Your task to perform on an android device: search for starred emails in the gmail app Image 0: 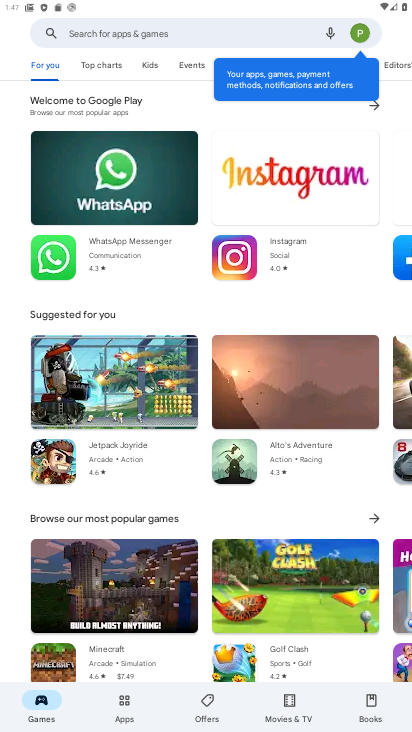
Step 0: press home button
Your task to perform on an android device: search for starred emails in the gmail app Image 1: 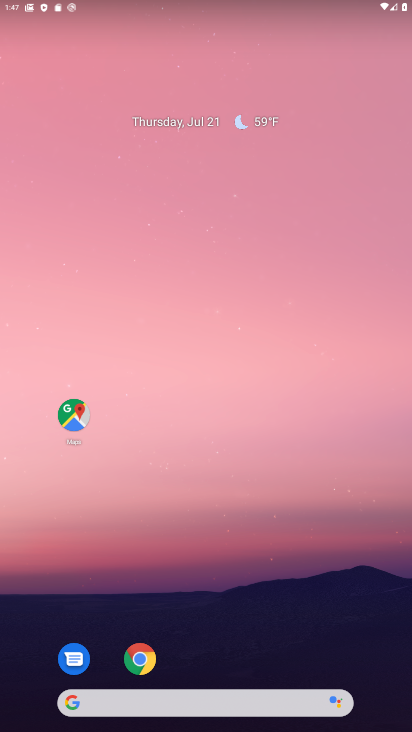
Step 1: drag from (295, 604) to (212, 131)
Your task to perform on an android device: search for starred emails in the gmail app Image 2: 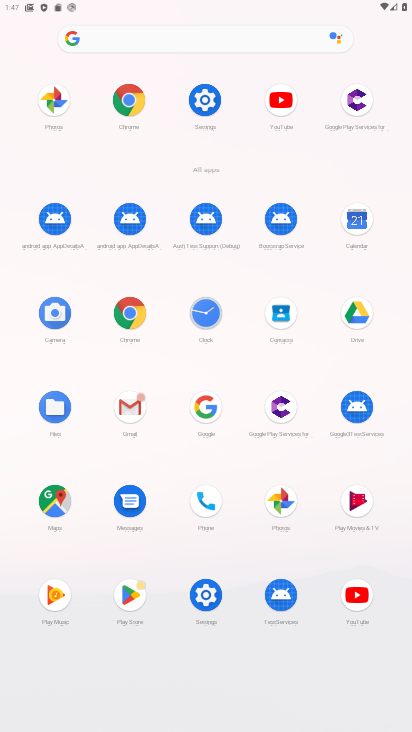
Step 2: click (136, 405)
Your task to perform on an android device: search for starred emails in the gmail app Image 3: 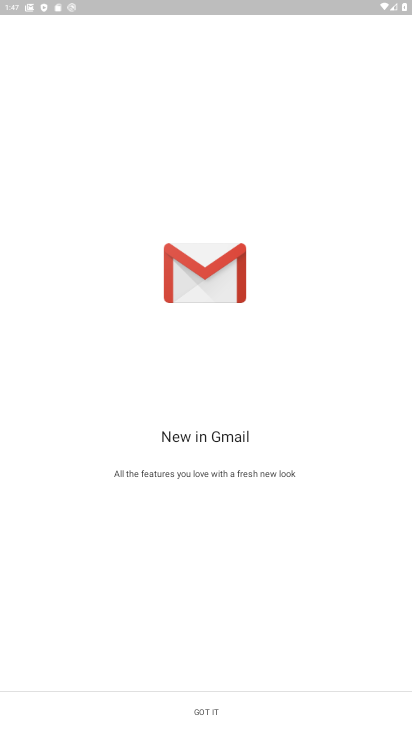
Step 3: click (210, 704)
Your task to perform on an android device: search for starred emails in the gmail app Image 4: 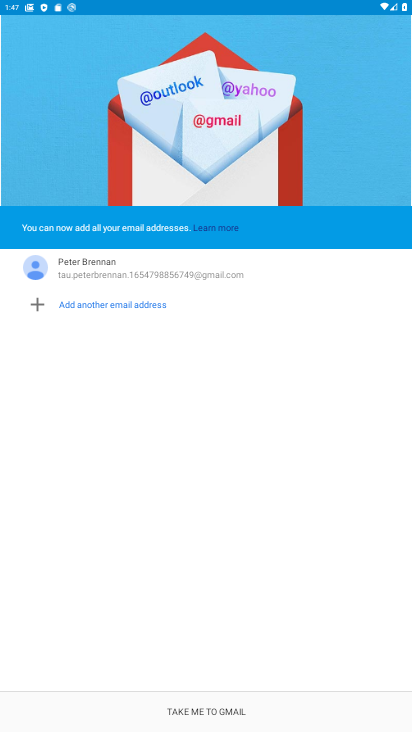
Step 4: click (223, 700)
Your task to perform on an android device: search for starred emails in the gmail app Image 5: 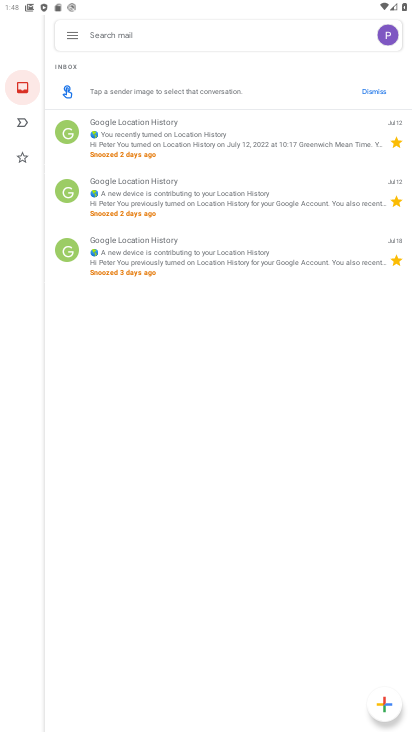
Step 5: click (74, 30)
Your task to perform on an android device: search for starred emails in the gmail app Image 6: 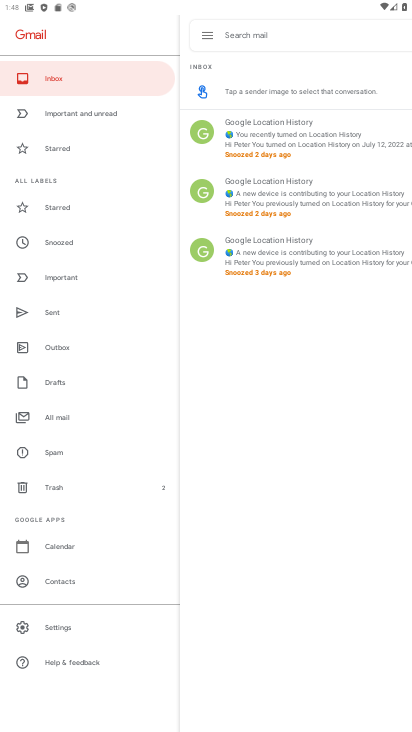
Step 6: click (64, 201)
Your task to perform on an android device: search for starred emails in the gmail app Image 7: 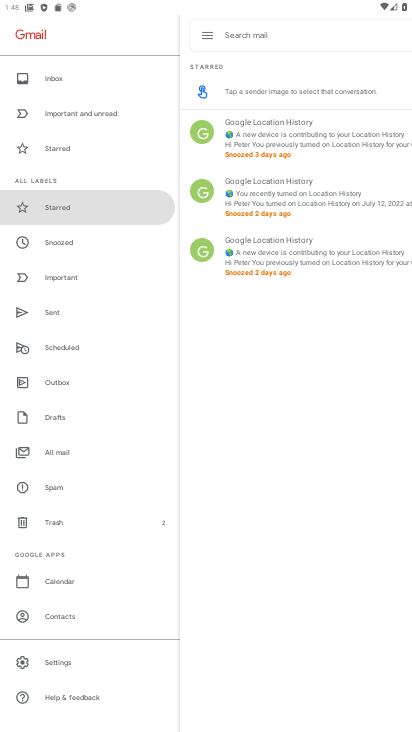
Step 7: task complete